Your task to perform on an android device: turn off translation in the chrome app Image 0: 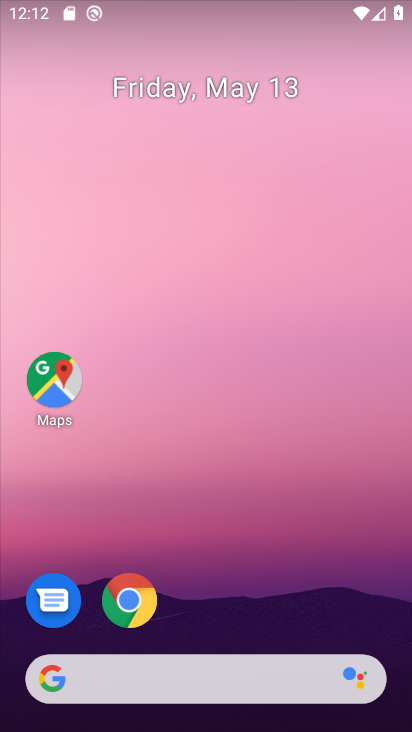
Step 0: click (144, 606)
Your task to perform on an android device: turn off translation in the chrome app Image 1: 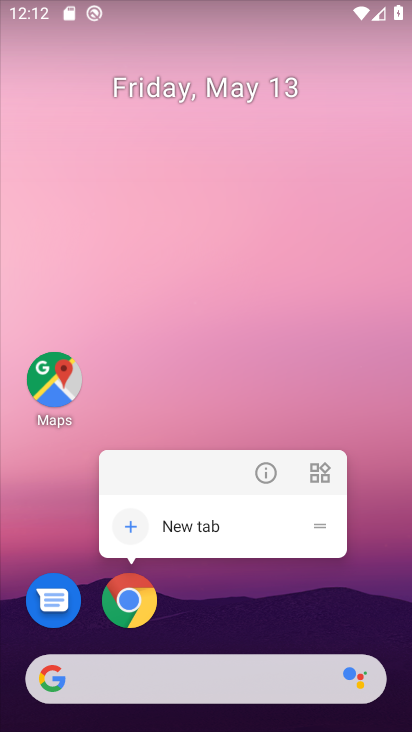
Step 1: click (126, 606)
Your task to perform on an android device: turn off translation in the chrome app Image 2: 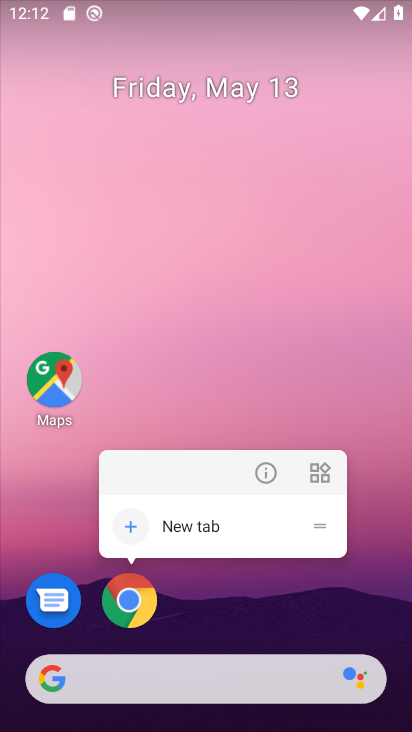
Step 2: click (139, 606)
Your task to perform on an android device: turn off translation in the chrome app Image 3: 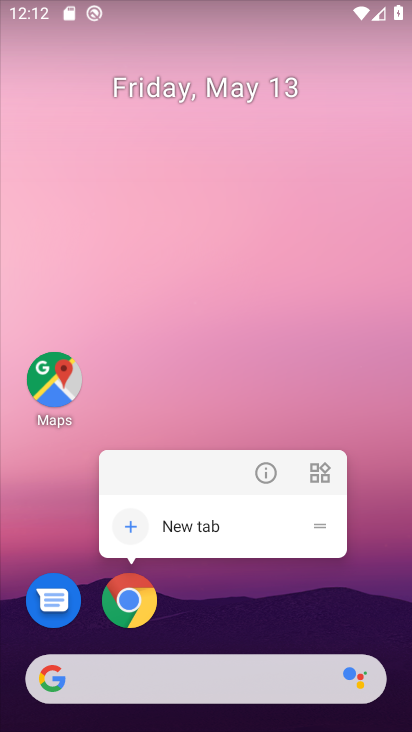
Step 3: click (136, 598)
Your task to perform on an android device: turn off translation in the chrome app Image 4: 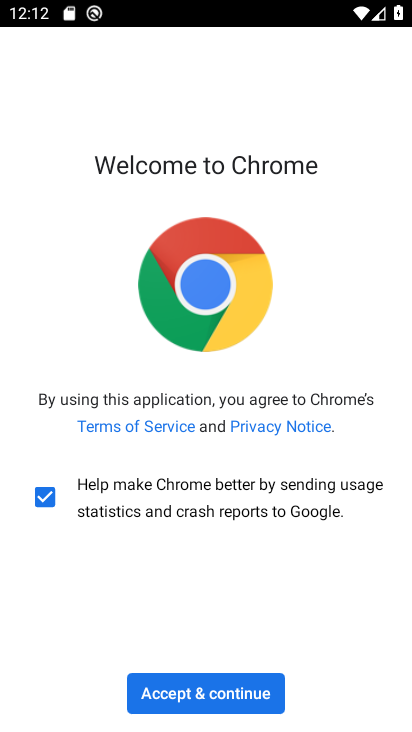
Step 4: click (237, 703)
Your task to perform on an android device: turn off translation in the chrome app Image 5: 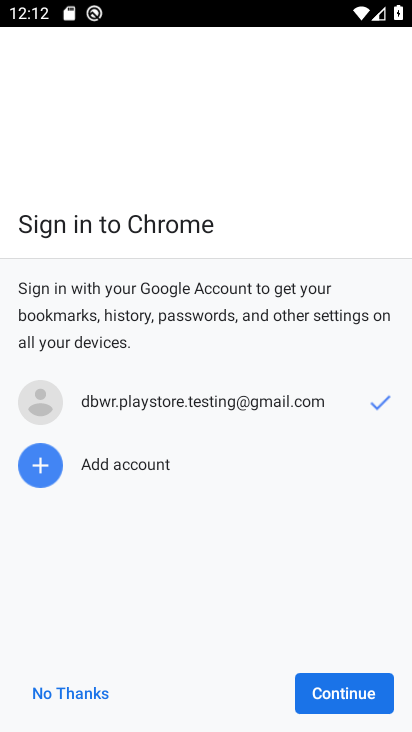
Step 5: click (336, 697)
Your task to perform on an android device: turn off translation in the chrome app Image 6: 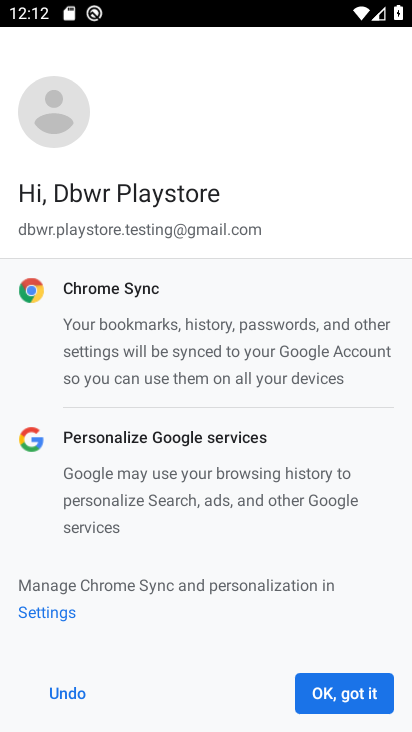
Step 6: click (336, 696)
Your task to perform on an android device: turn off translation in the chrome app Image 7: 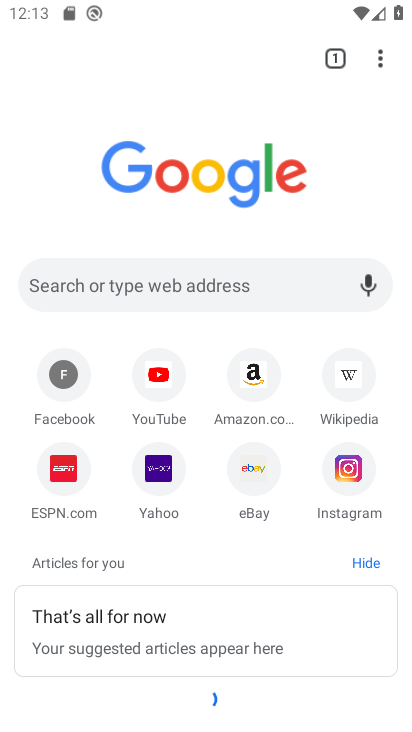
Step 7: drag from (388, 72) to (269, 499)
Your task to perform on an android device: turn off translation in the chrome app Image 8: 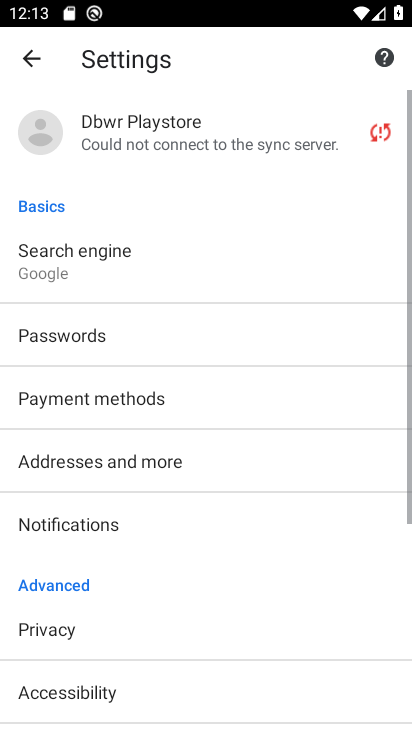
Step 8: drag from (214, 678) to (311, 397)
Your task to perform on an android device: turn off translation in the chrome app Image 9: 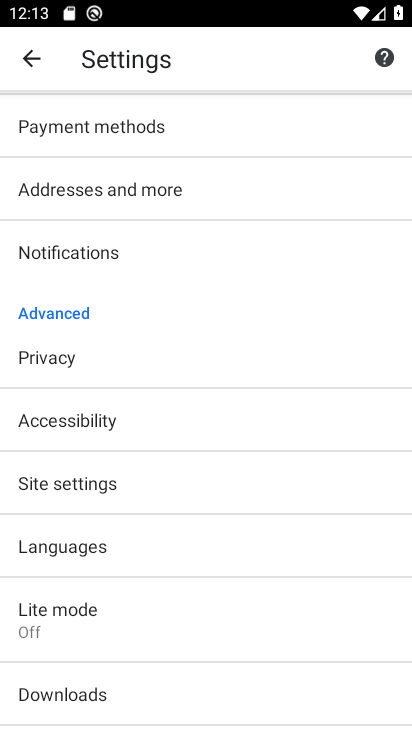
Step 9: drag from (150, 643) to (201, 504)
Your task to perform on an android device: turn off translation in the chrome app Image 10: 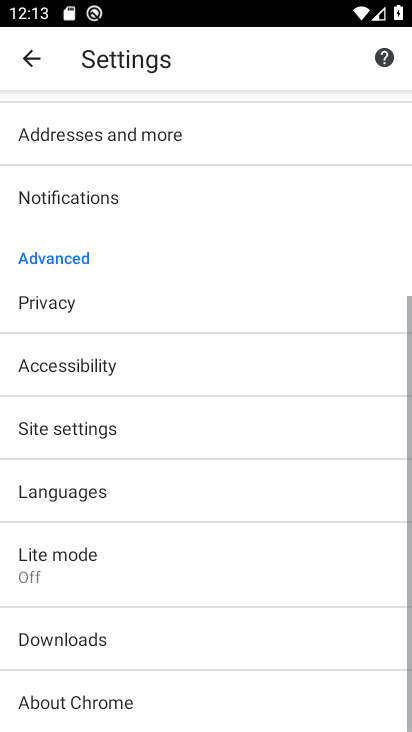
Step 10: click (134, 486)
Your task to perform on an android device: turn off translation in the chrome app Image 11: 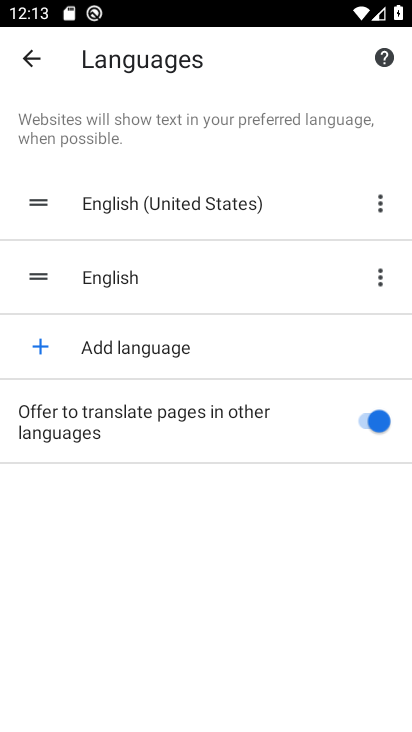
Step 11: click (370, 420)
Your task to perform on an android device: turn off translation in the chrome app Image 12: 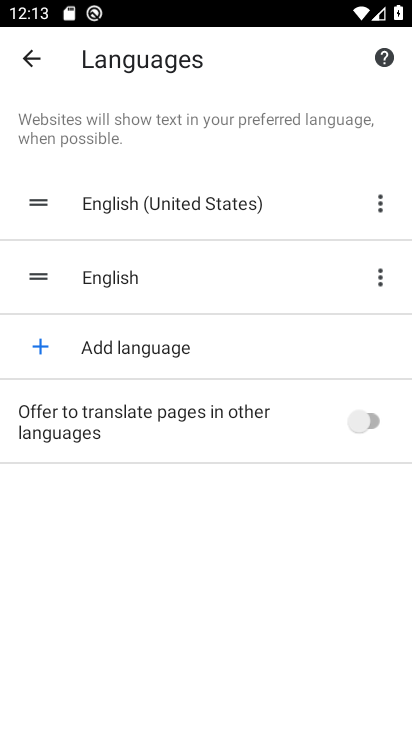
Step 12: task complete